Your task to perform on an android device: Go to Amazon Image 0: 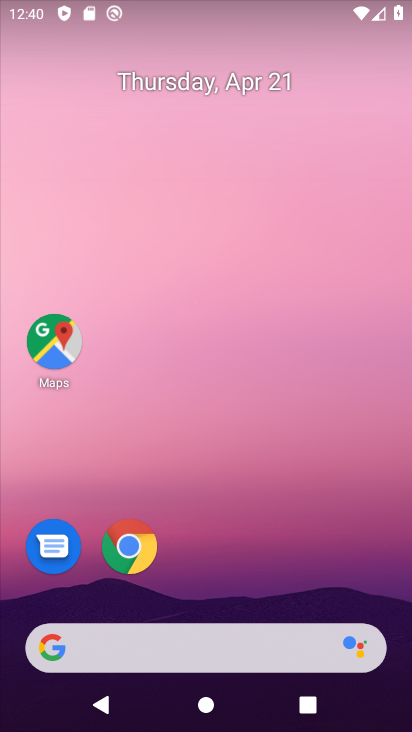
Step 0: drag from (205, 474) to (322, 136)
Your task to perform on an android device: Go to Amazon Image 1: 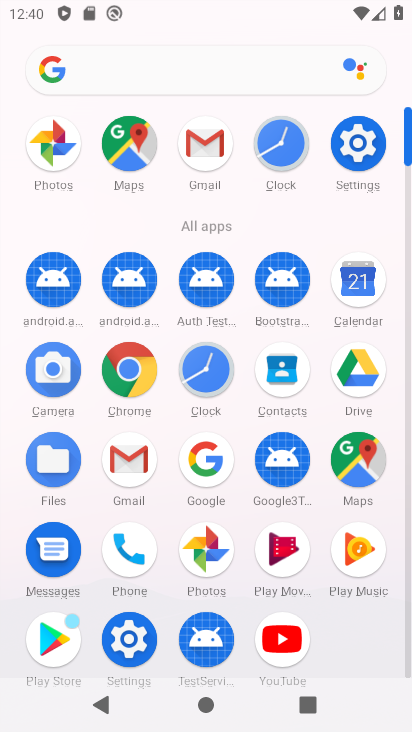
Step 1: click (120, 372)
Your task to perform on an android device: Go to Amazon Image 2: 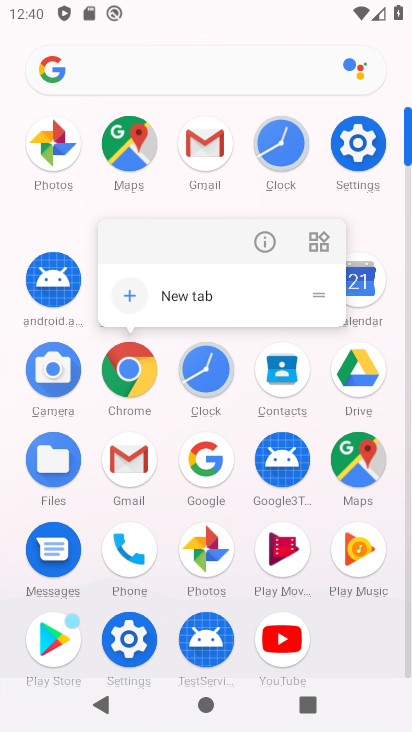
Step 2: click (131, 378)
Your task to perform on an android device: Go to Amazon Image 3: 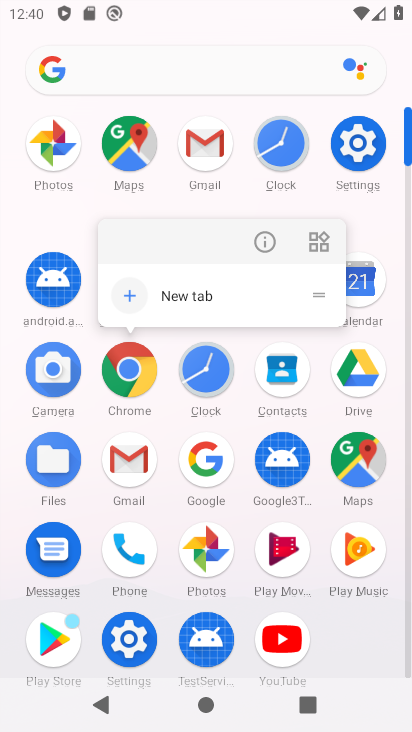
Step 3: click (136, 386)
Your task to perform on an android device: Go to Amazon Image 4: 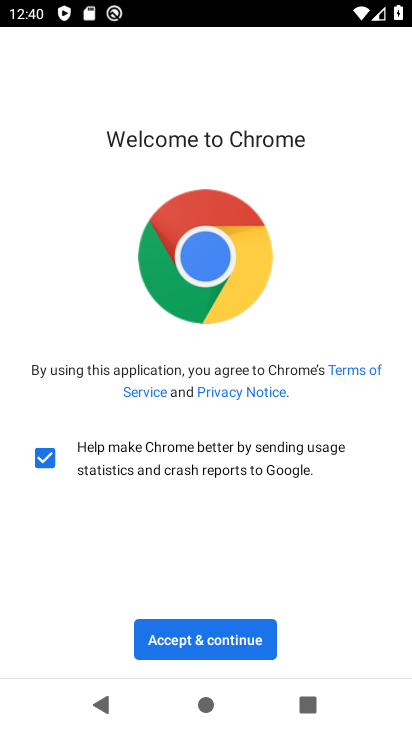
Step 4: click (217, 641)
Your task to perform on an android device: Go to Amazon Image 5: 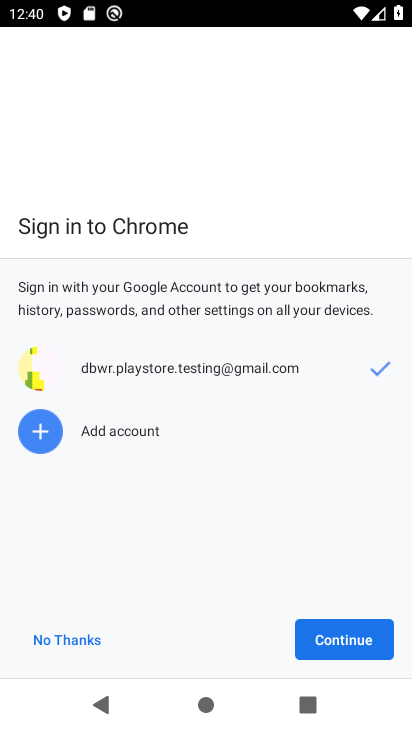
Step 5: click (319, 636)
Your task to perform on an android device: Go to Amazon Image 6: 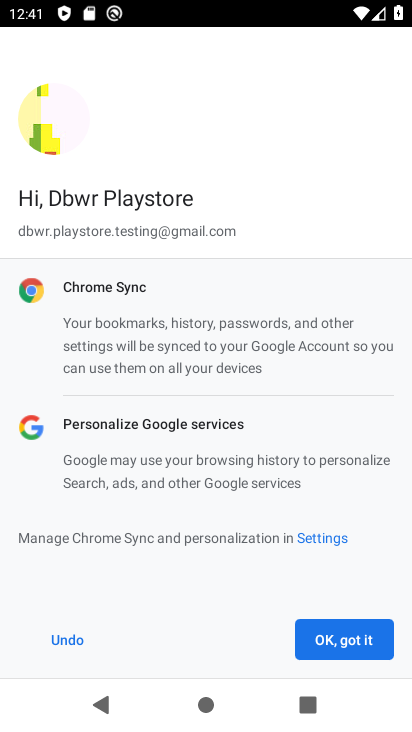
Step 6: click (327, 629)
Your task to perform on an android device: Go to Amazon Image 7: 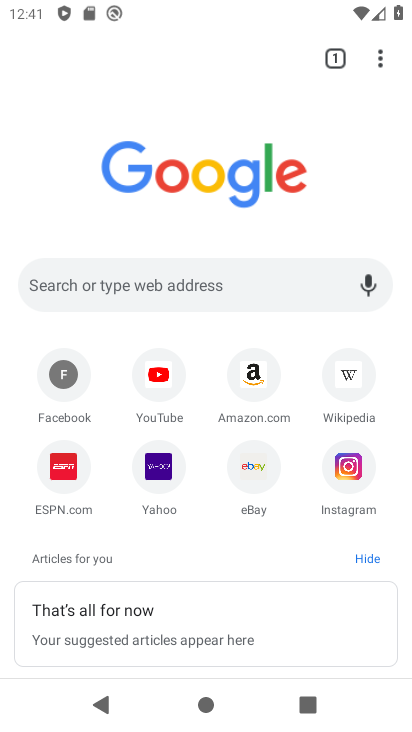
Step 7: click (253, 390)
Your task to perform on an android device: Go to Amazon Image 8: 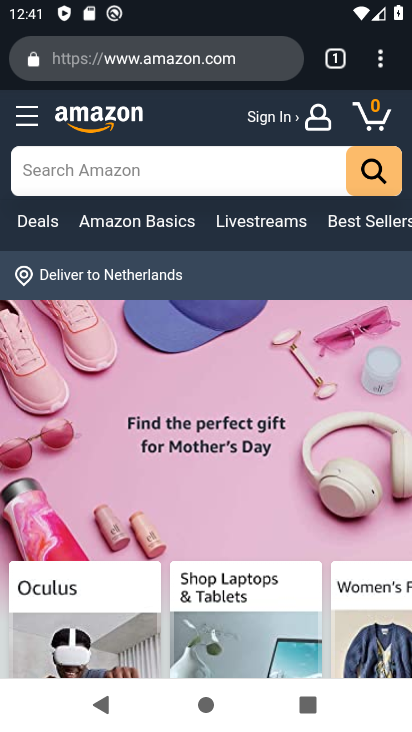
Step 8: task complete